Your task to perform on an android device: find photos in the google photos app Image 0: 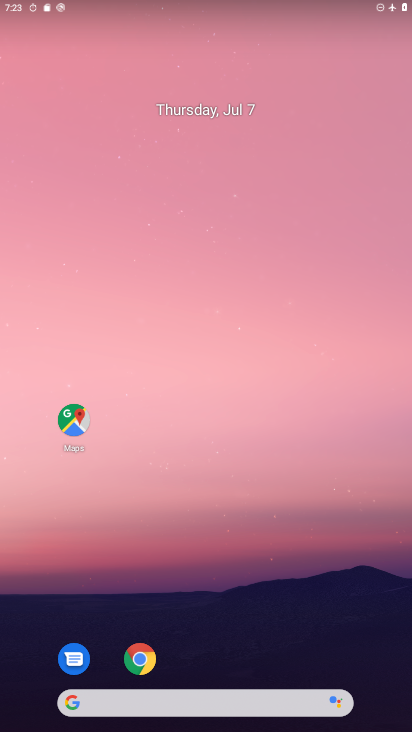
Step 0: drag from (377, 663) to (255, 56)
Your task to perform on an android device: find photos in the google photos app Image 1: 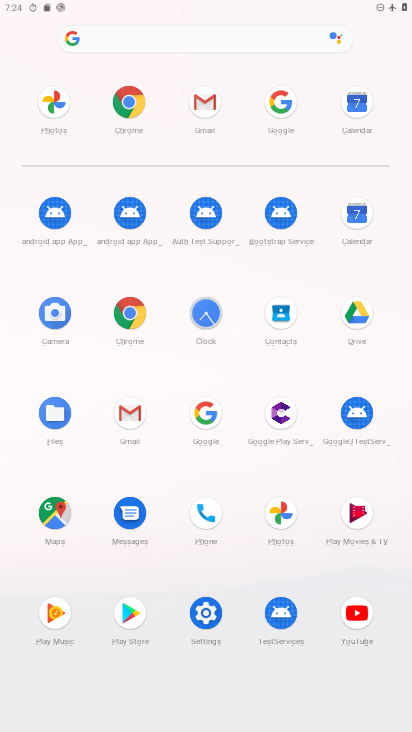
Step 1: click (283, 516)
Your task to perform on an android device: find photos in the google photos app Image 2: 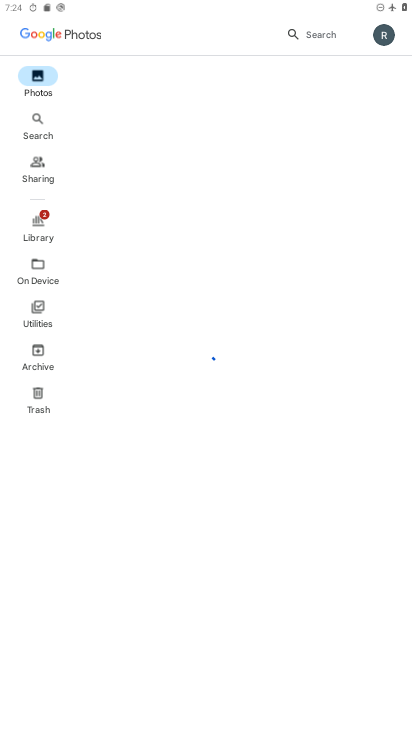
Step 2: task complete